Your task to perform on an android device: turn notification dots on Image 0: 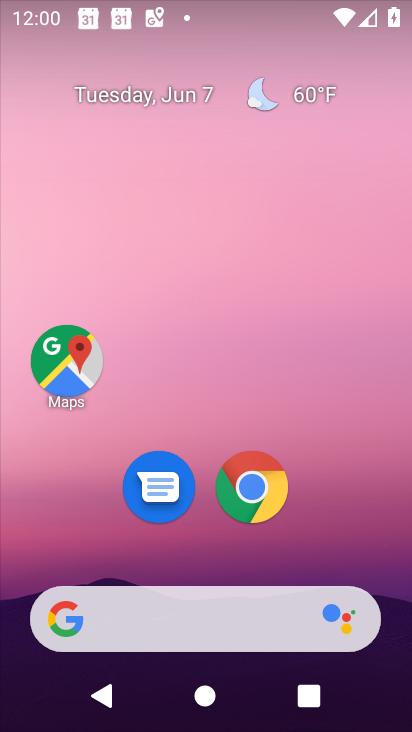
Step 0: drag from (339, 528) to (274, 230)
Your task to perform on an android device: turn notification dots on Image 1: 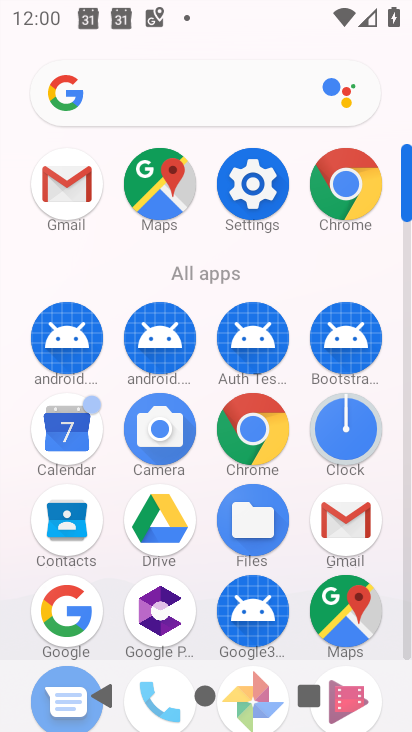
Step 1: click (254, 175)
Your task to perform on an android device: turn notification dots on Image 2: 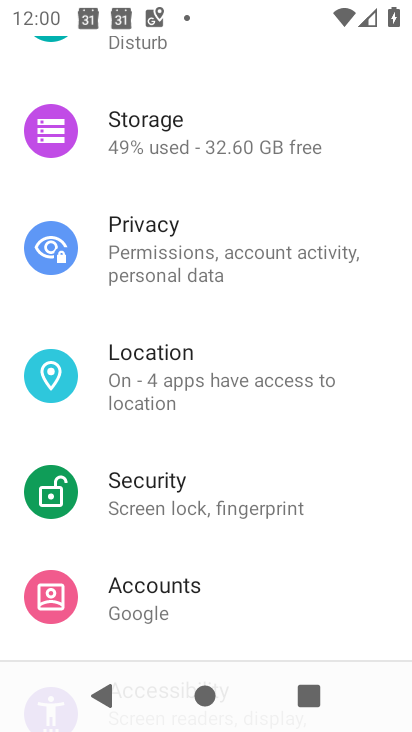
Step 2: drag from (228, 184) to (261, 444)
Your task to perform on an android device: turn notification dots on Image 3: 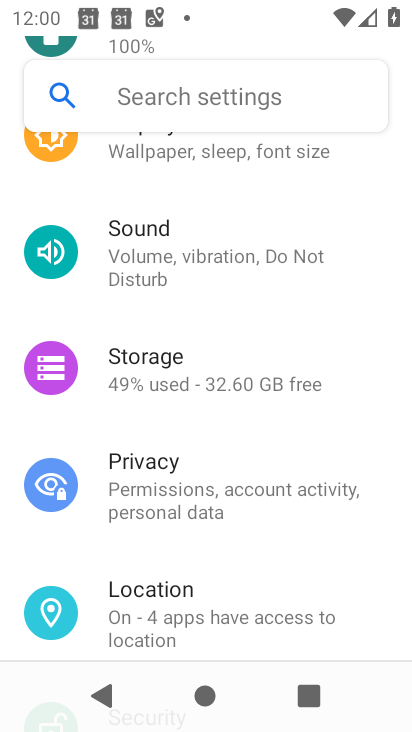
Step 3: drag from (246, 166) to (291, 649)
Your task to perform on an android device: turn notification dots on Image 4: 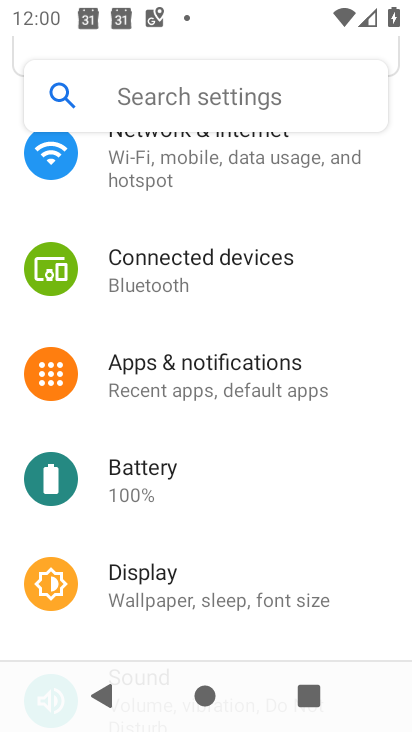
Step 4: click (244, 371)
Your task to perform on an android device: turn notification dots on Image 5: 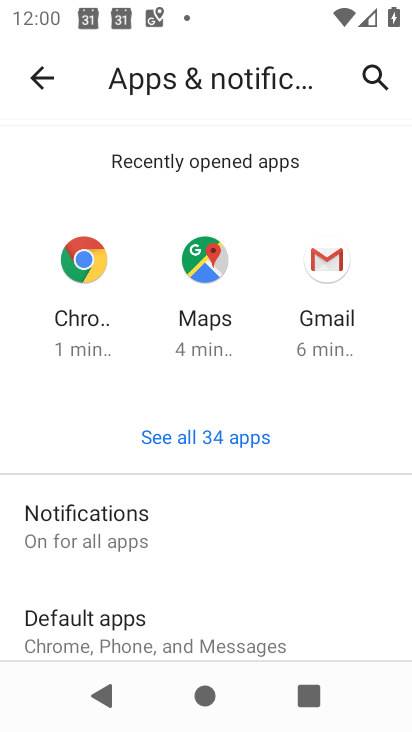
Step 5: click (228, 530)
Your task to perform on an android device: turn notification dots on Image 6: 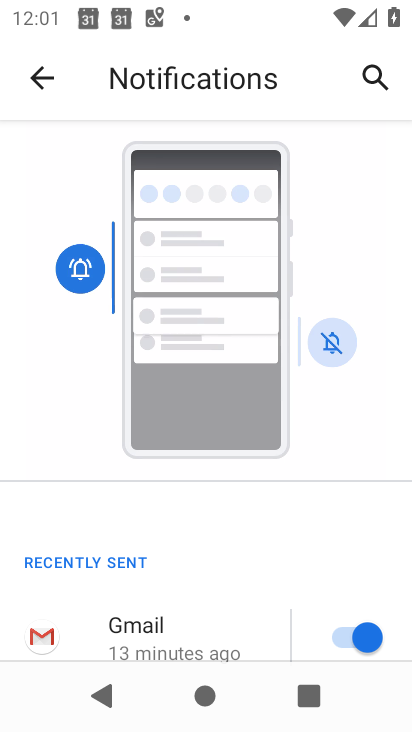
Step 6: drag from (276, 636) to (119, 0)
Your task to perform on an android device: turn notification dots on Image 7: 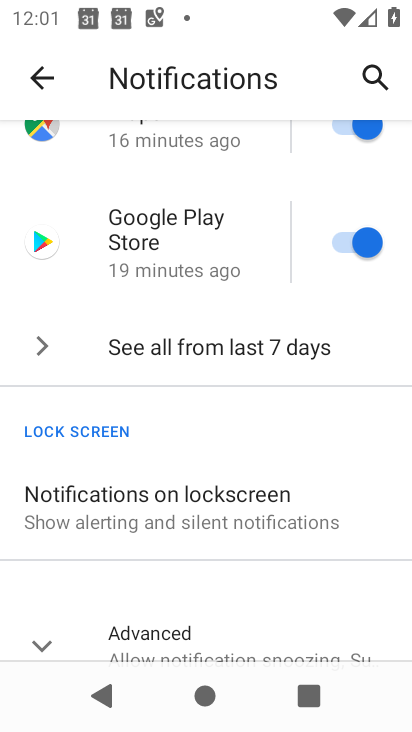
Step 7: drag from (254, 588) to (216, 368)
Your task to perform on an android device: turn notification dots on Image 8: 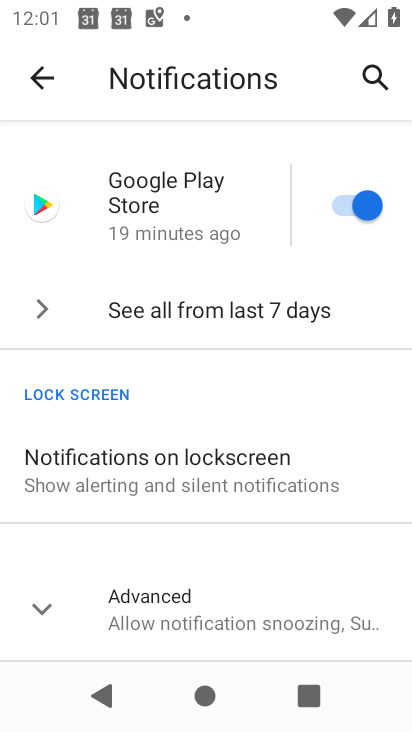
Step 8: click (242, 601)
Your task to perform on an android device: turn notification dots on Image 9: 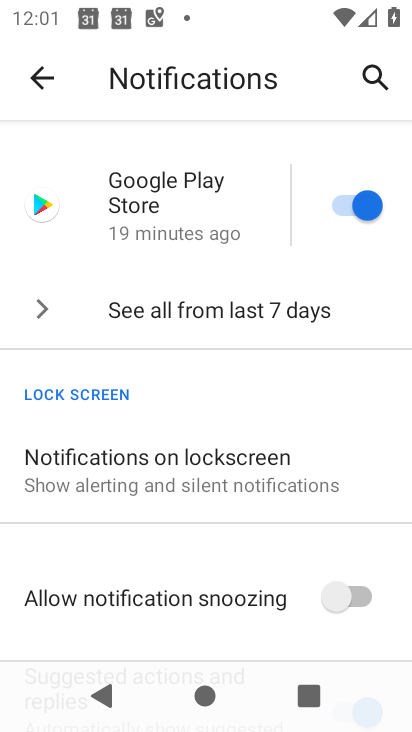
Step 9: task complete